Your task to perform on an android device: Turn on the flashlight Image 0: 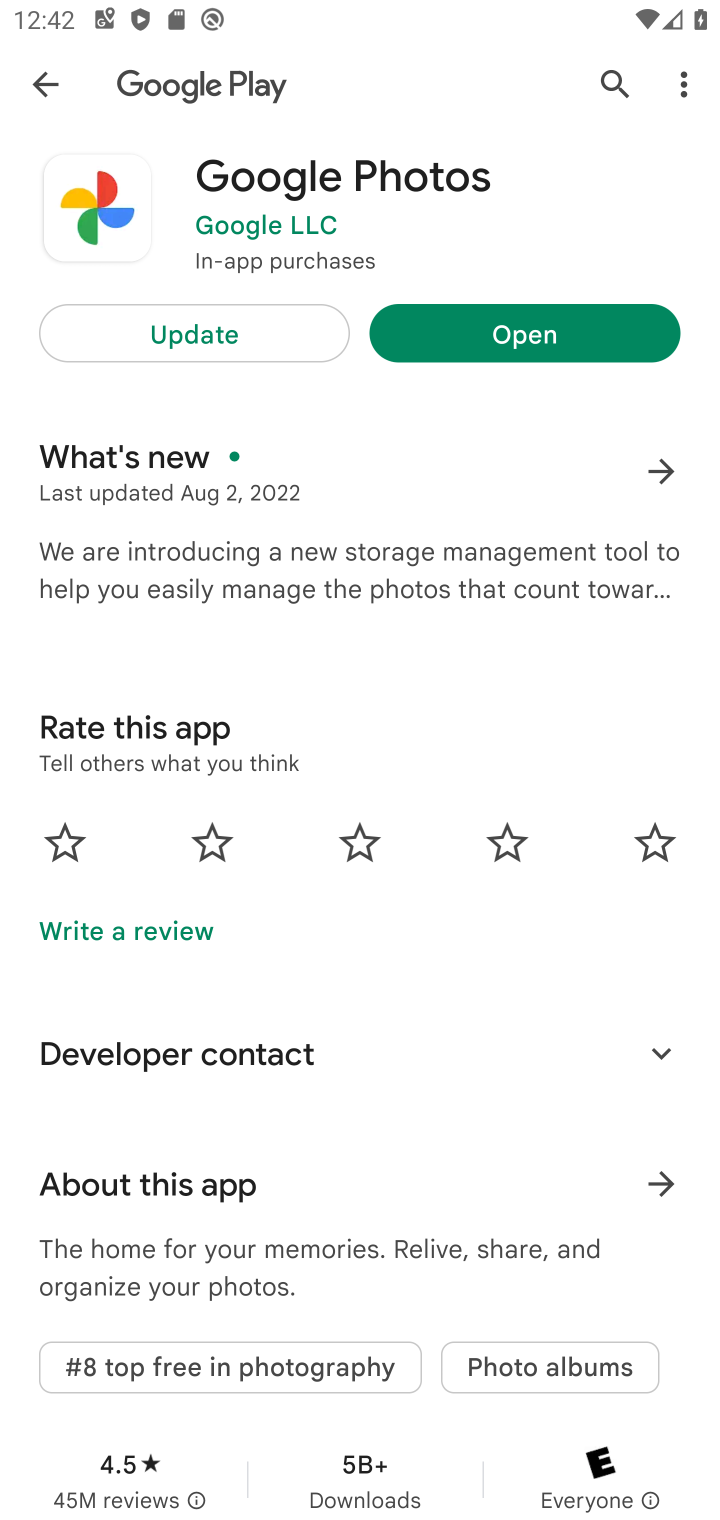
Step 0: press back button
Your task to perform on an android device: Turn on the flashlight Image 1: 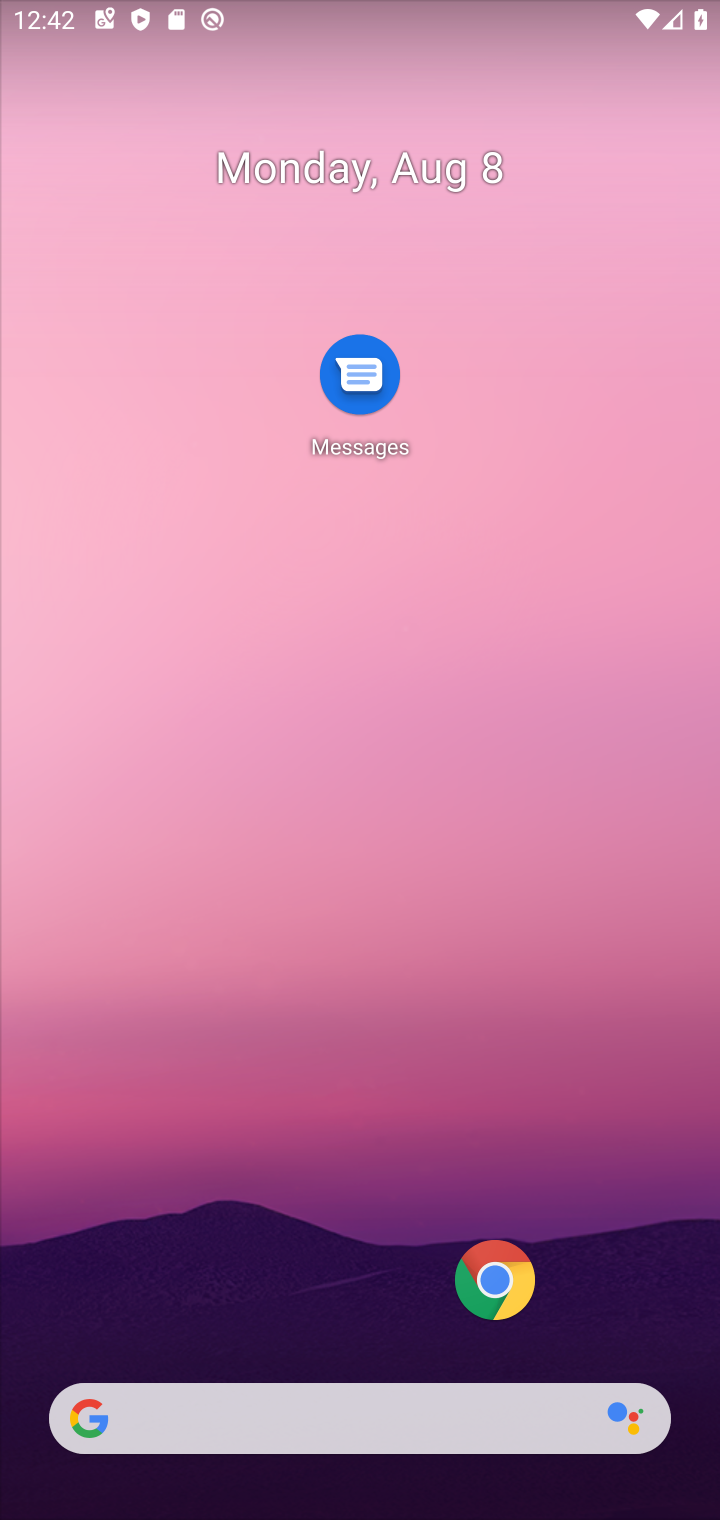
Step 1: drag from (311, 718) to (456, 44)
Your task to perform on an android device: Turn on the flashlight Image 2: 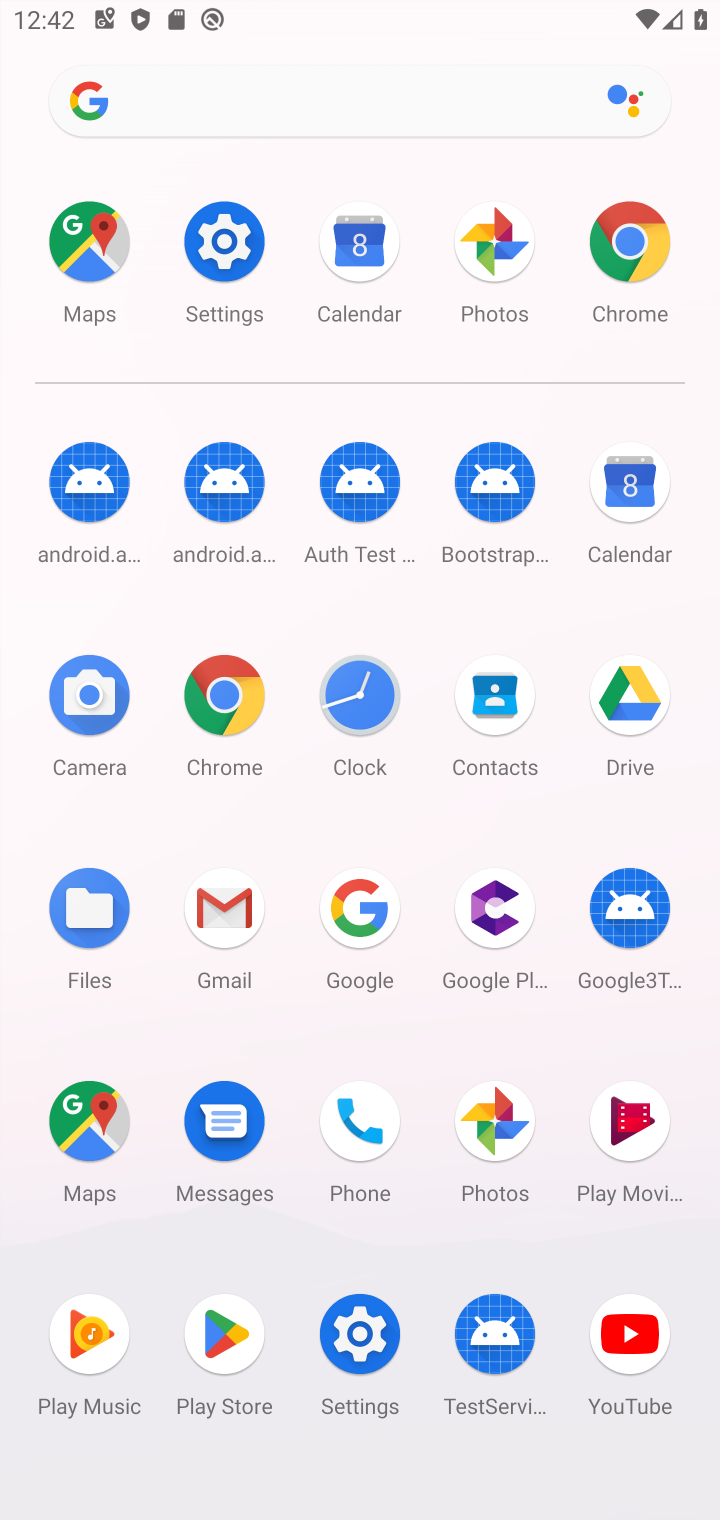
Step 2: click (233, 255)
Your task to perform on an android device: Turn on the flashlight Image 3: 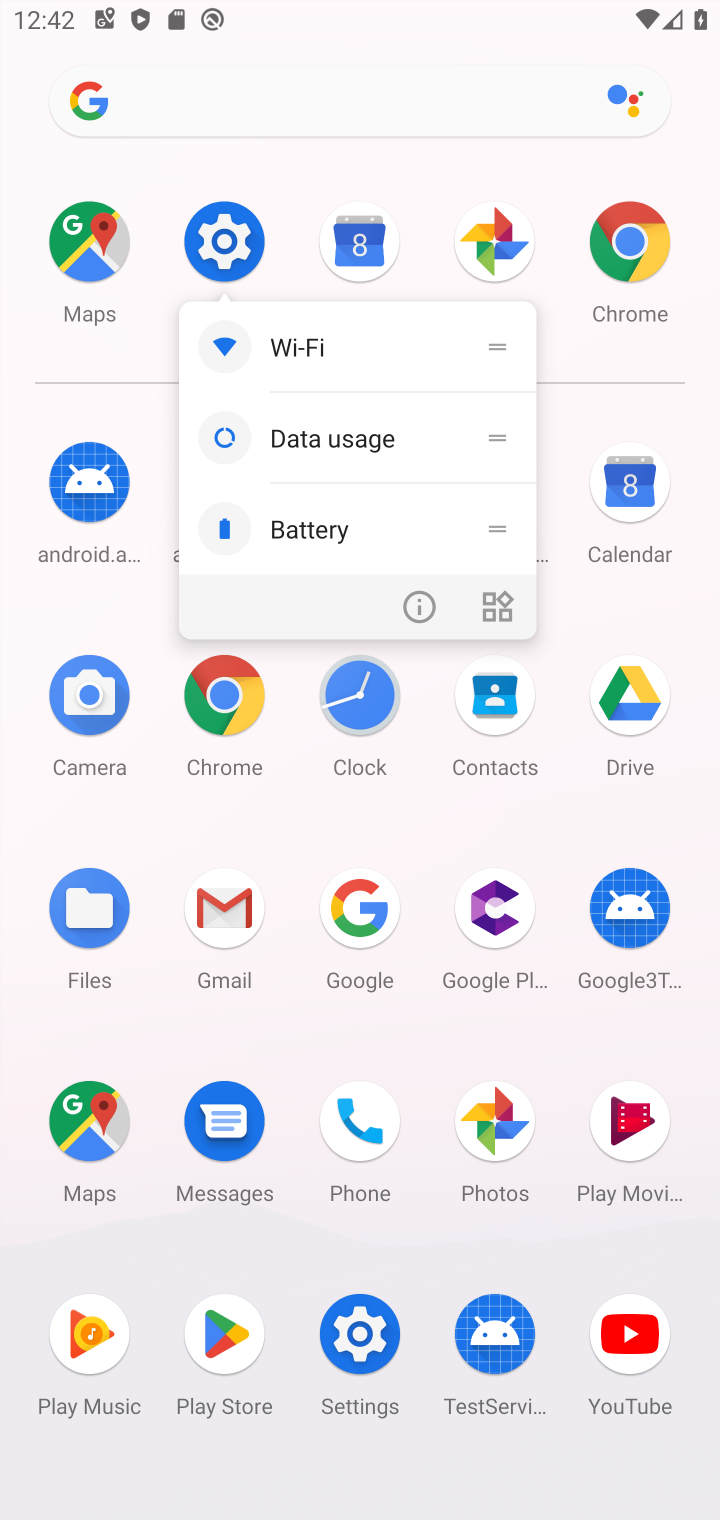
Step 3: click (235, 253)
Your task to perform on an android device: Turn on the flashlight Image 4: 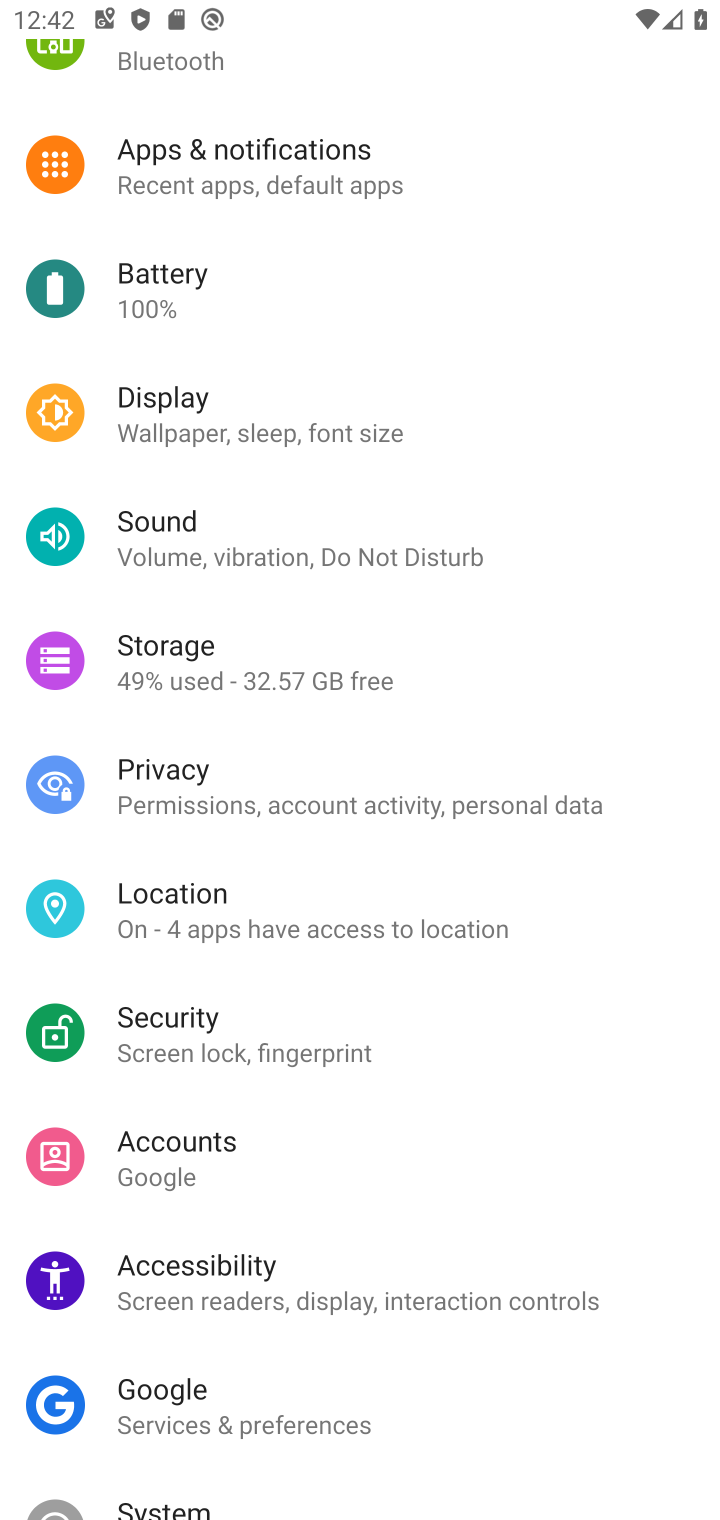
Step 4: drag from (508, 556) to (373, 1497)
Your task to perform on an android device: Turn on the flashlight Image 5: 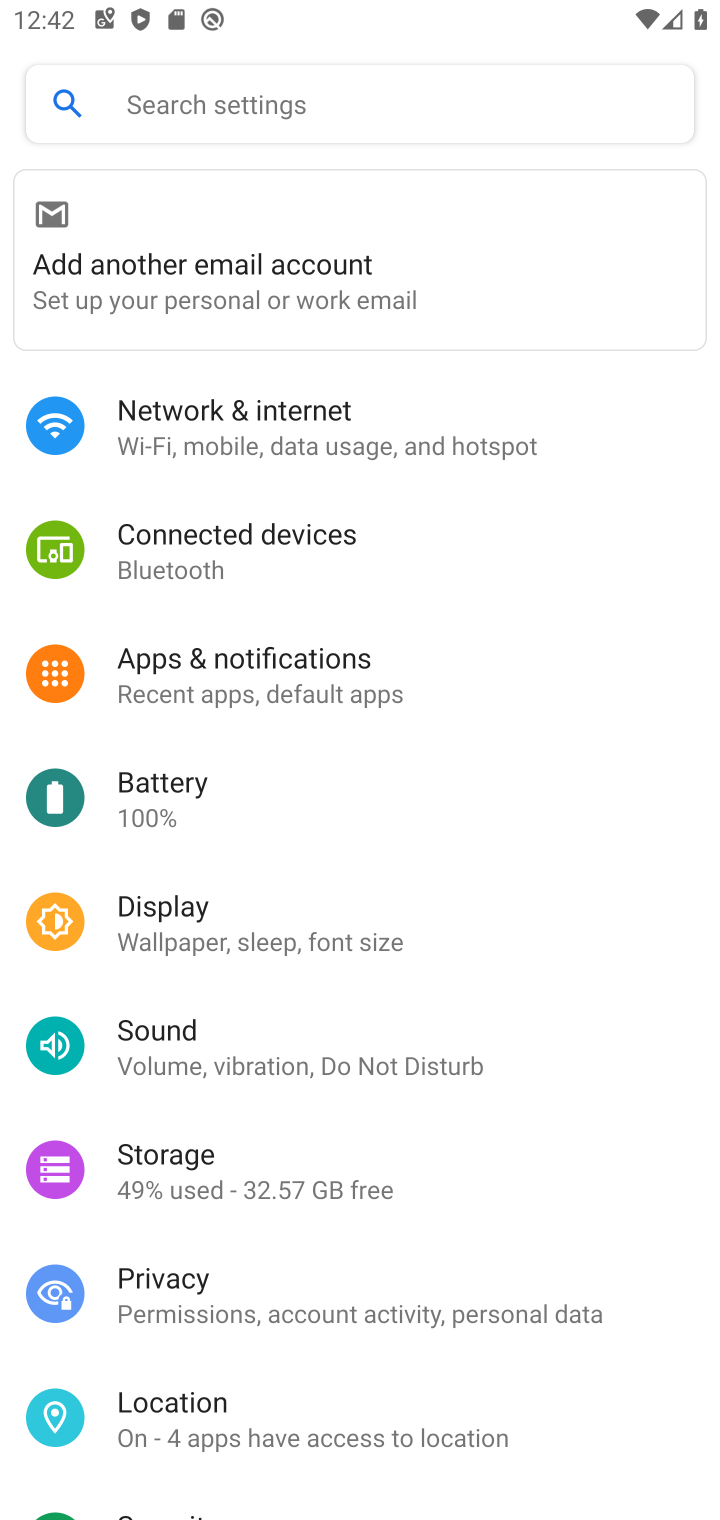
Step 5: click (253, 104)
Your task to perform on an android device: Turn on the flashlight Image 6: 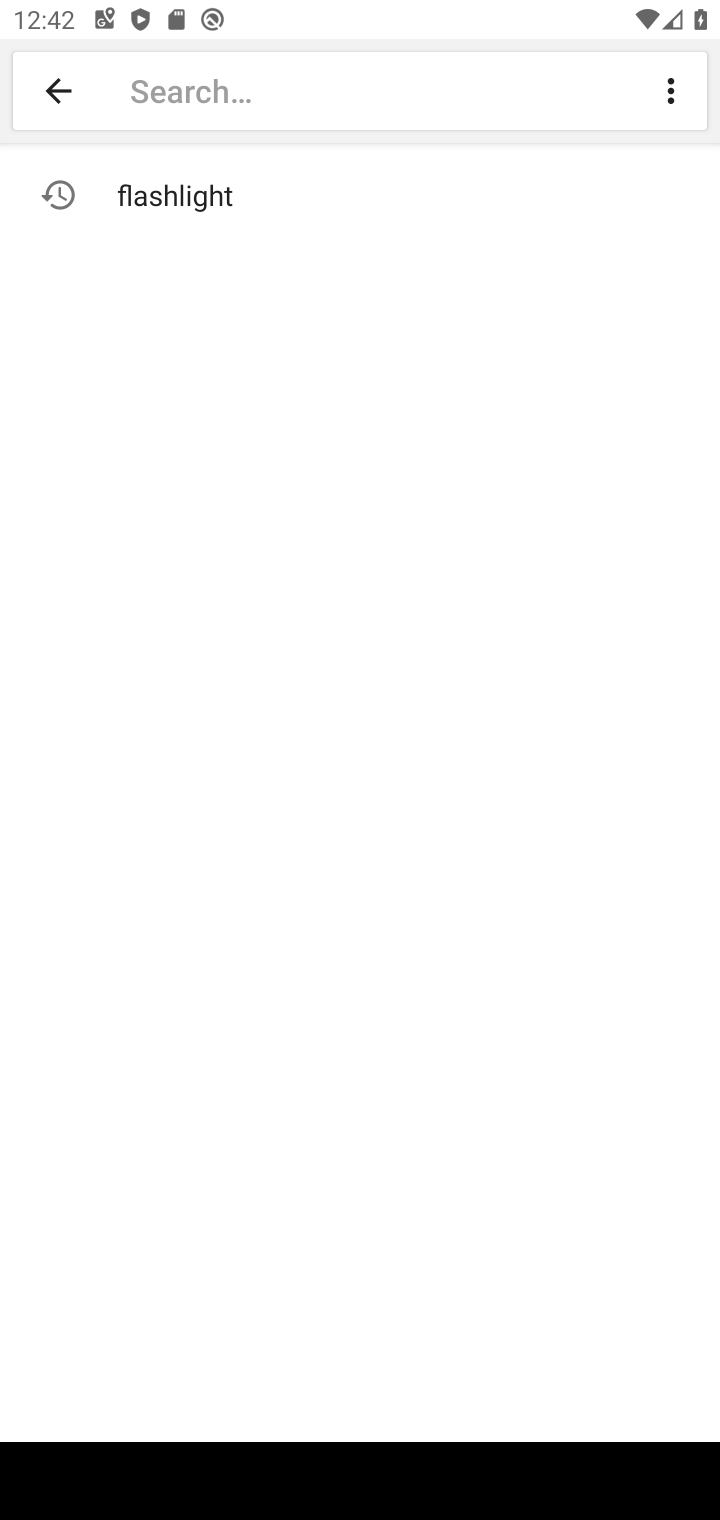
Step 6: type "flashlight"
Your task to perform on an android device: Turn on the flashlight Image 7: 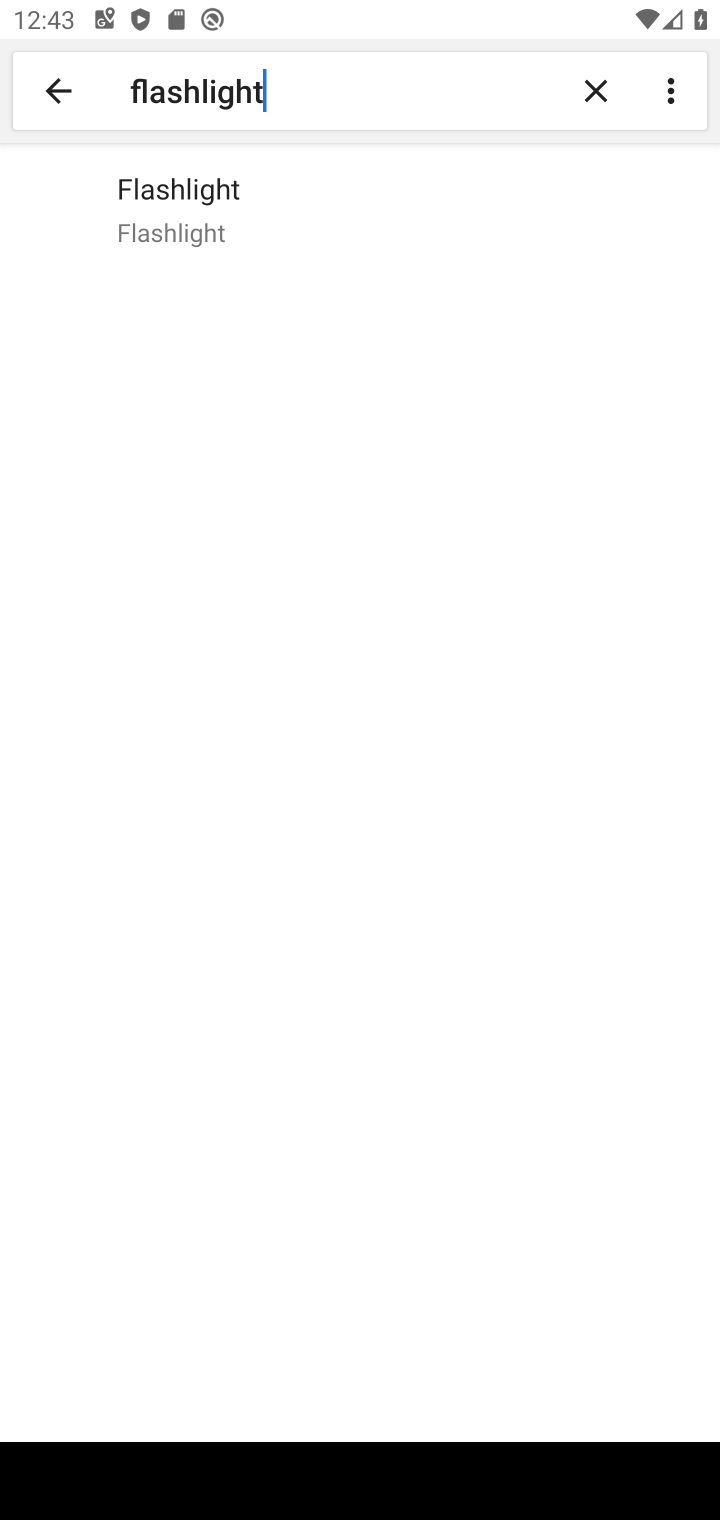
Step 7: click (231, 187)
Your task to perform on an android device: Turn on the flashlight Image 8: 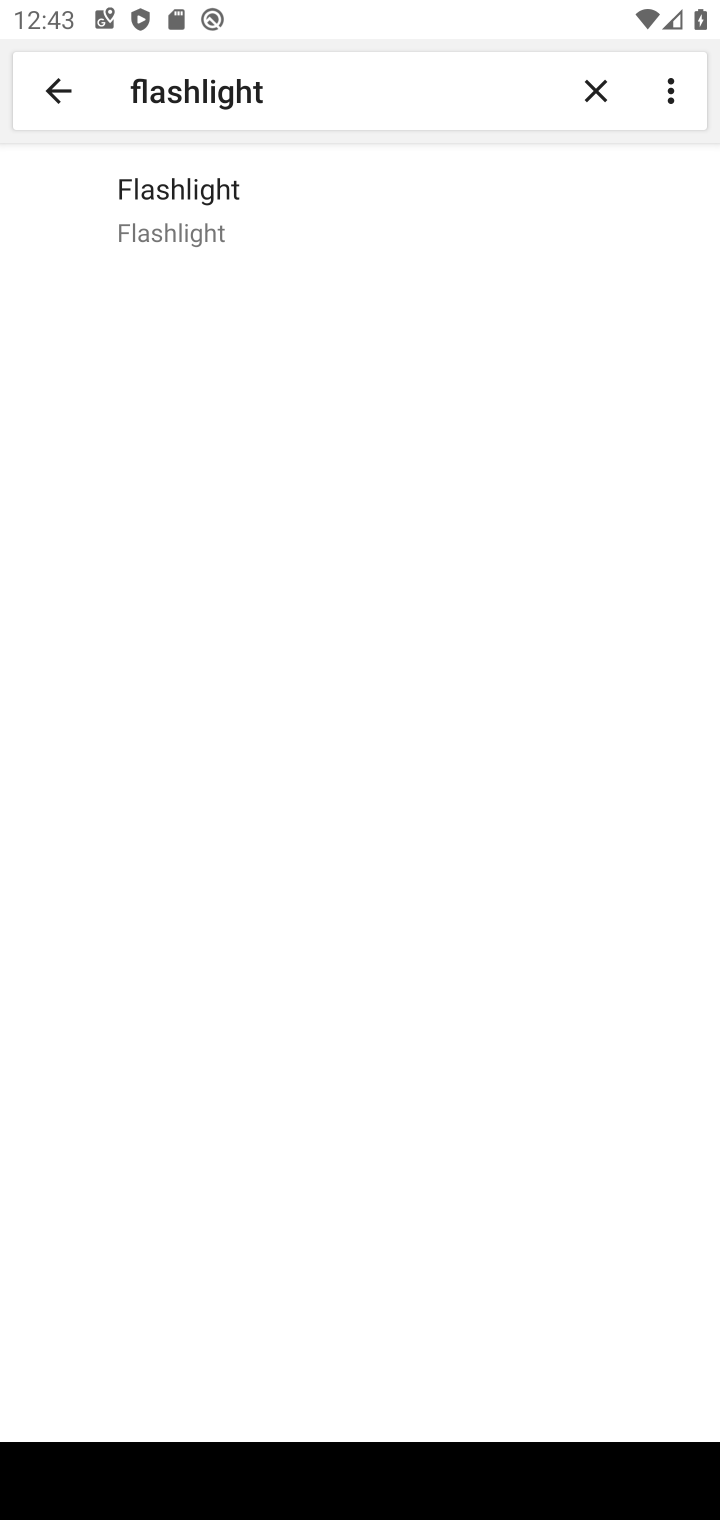
Step 8: click (210, 200)
Your task to perform on an android device: Turn on the flashlight Image 9: 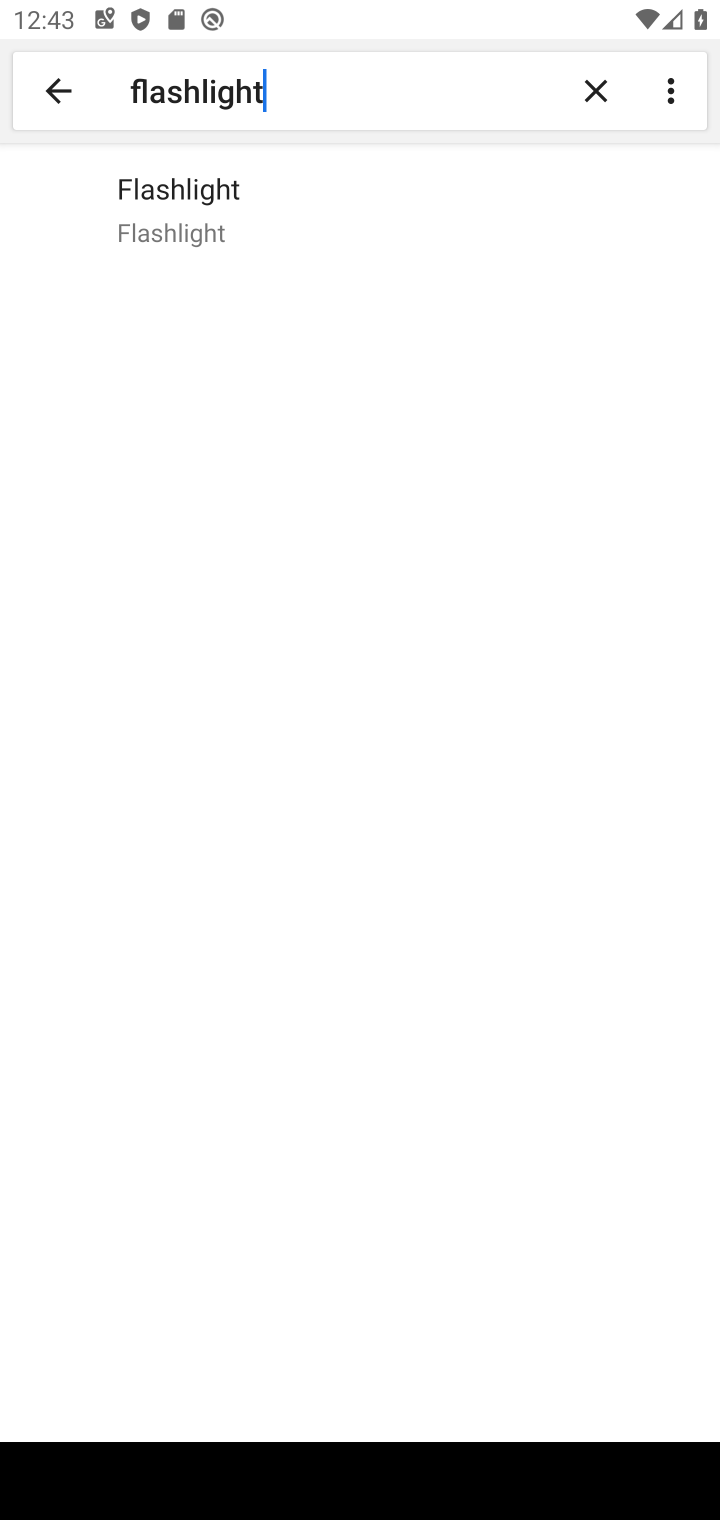
Step 9: click (268, 203)
Your task to perform on an android device: Turn on the flashlight Image 10: 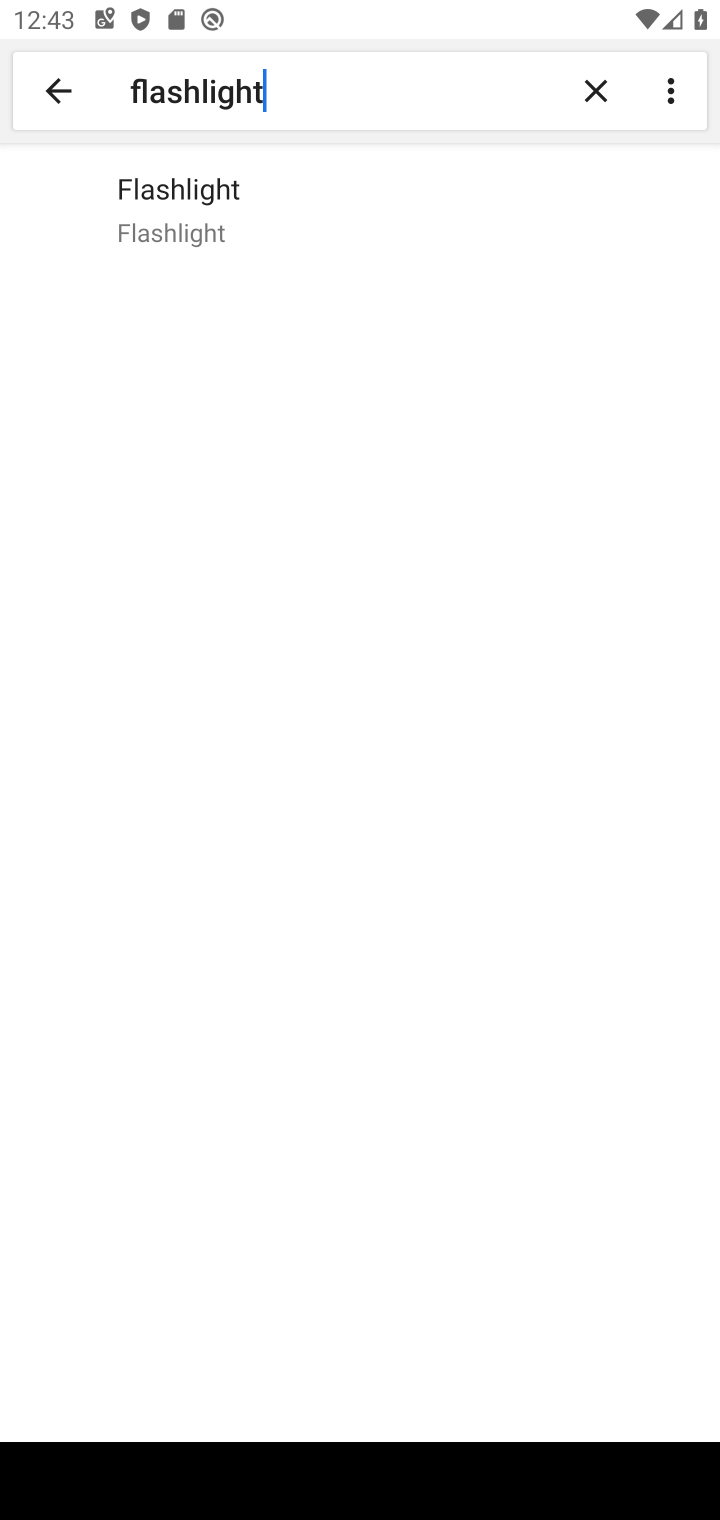
Step 10: task complete